Your task to perform on an android device: Go to Google maps Image 0: 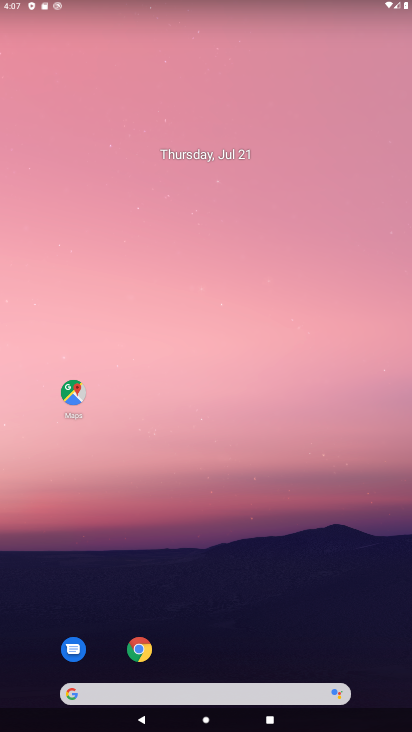
Step 0: click (66, 400)
Your task to perform on an android device: Go to Google maps Image 1: 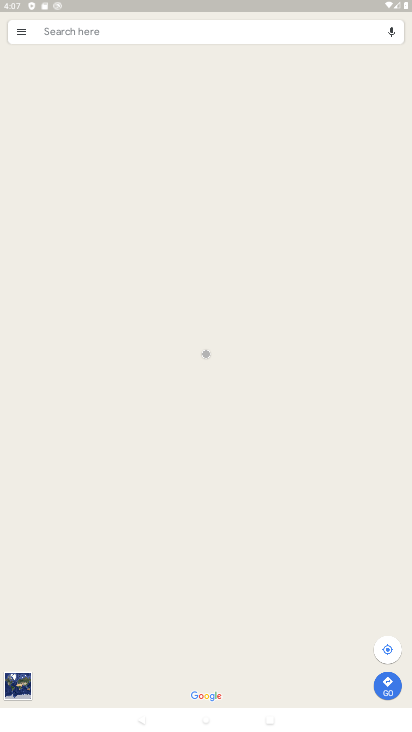
Step 1: task complete